Your task to perform on an android device: Go to battery settings Image 0: 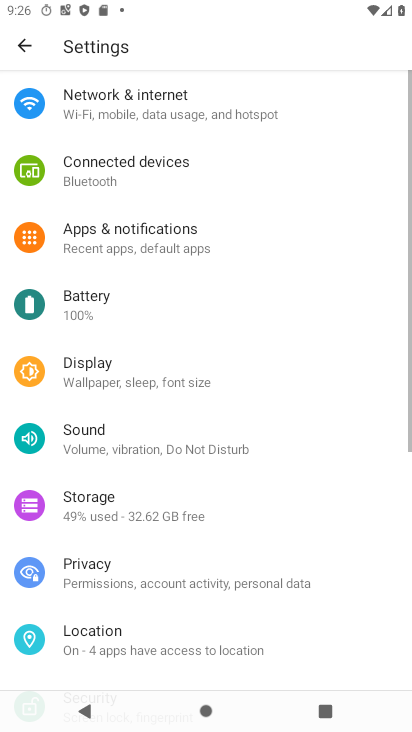
Step 0: click (85, 287)
Your task to perform on an android device: Go to battery settings Image 1: 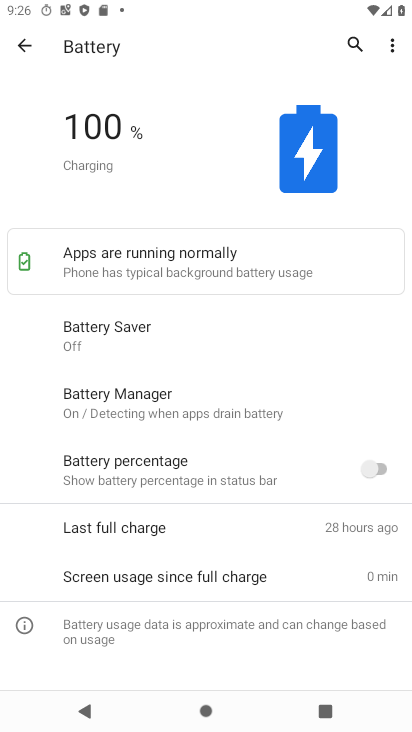
Step 1: task complete